Your task to perform on an android device: Go to Google maps Image 0: 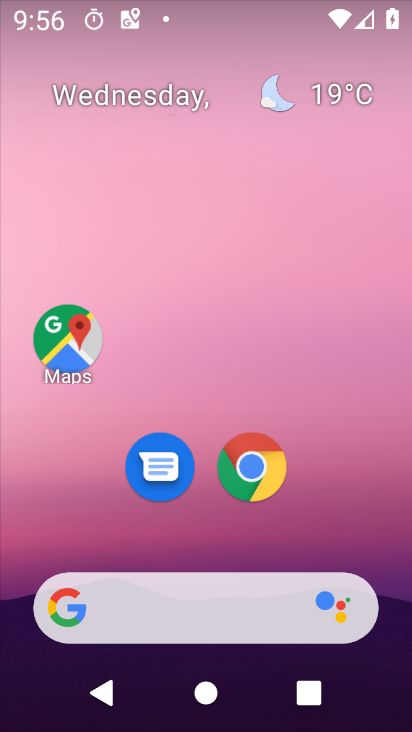
Step 0: click (68, 352)
Your task to perform on an android device: Go to Google maps Image 1: 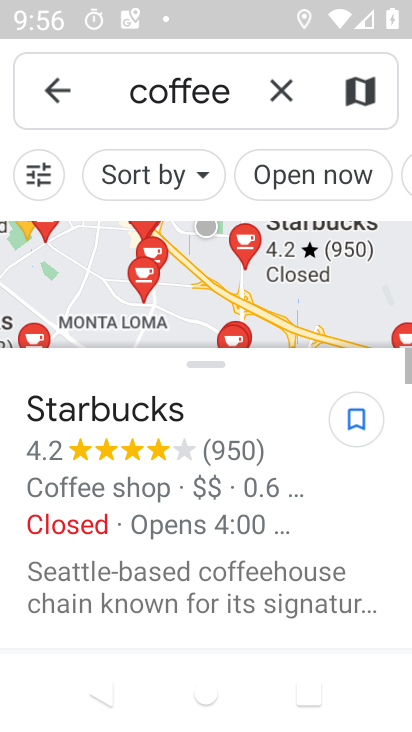
Step 1: task complete